Your task to perform on an android device: Add asus rog to the cart on walmart.com Image 0: 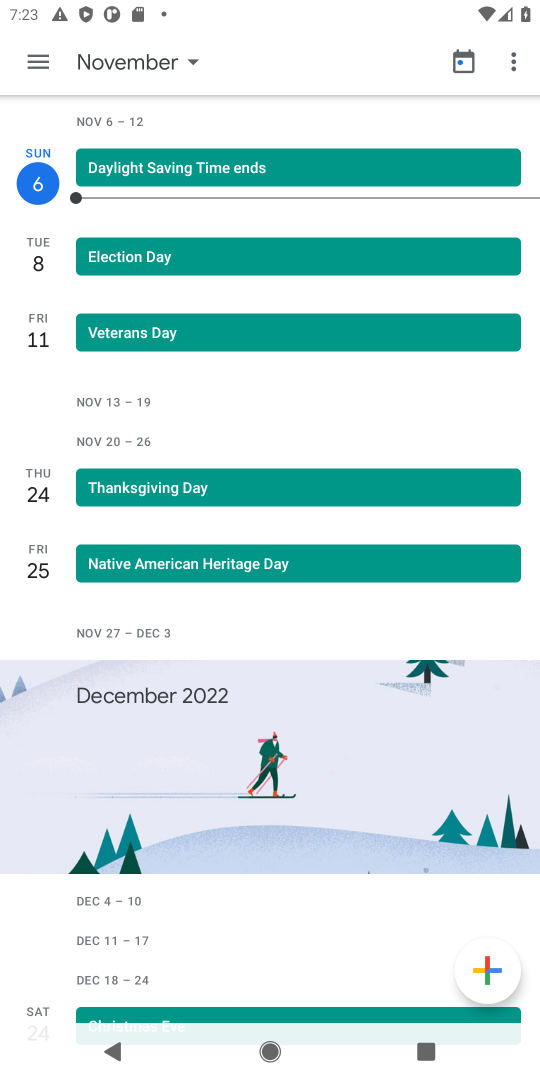
Step 0: press home button
Your task to perform on an android device: Add asus rog to the cart on walmart.com Image 1: 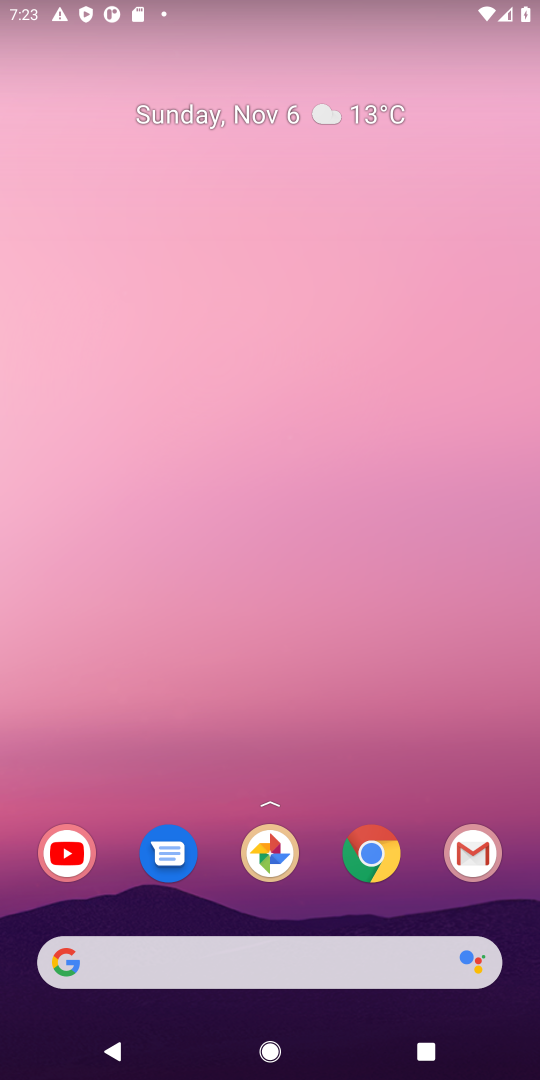
Step 1: click (363, 851)
Your task to perform on an android device: Add asus rog to the cart on walmart.com Image 2: 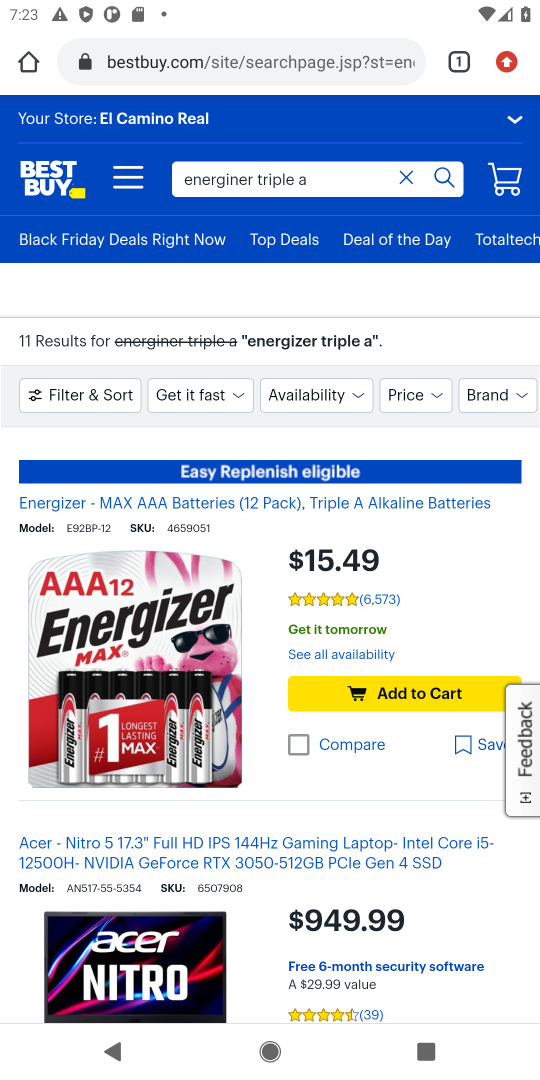
Step 2: click (299, 40)
Your task to perform on an android device: Add asus rog to the cart on walmart.com Image 3: 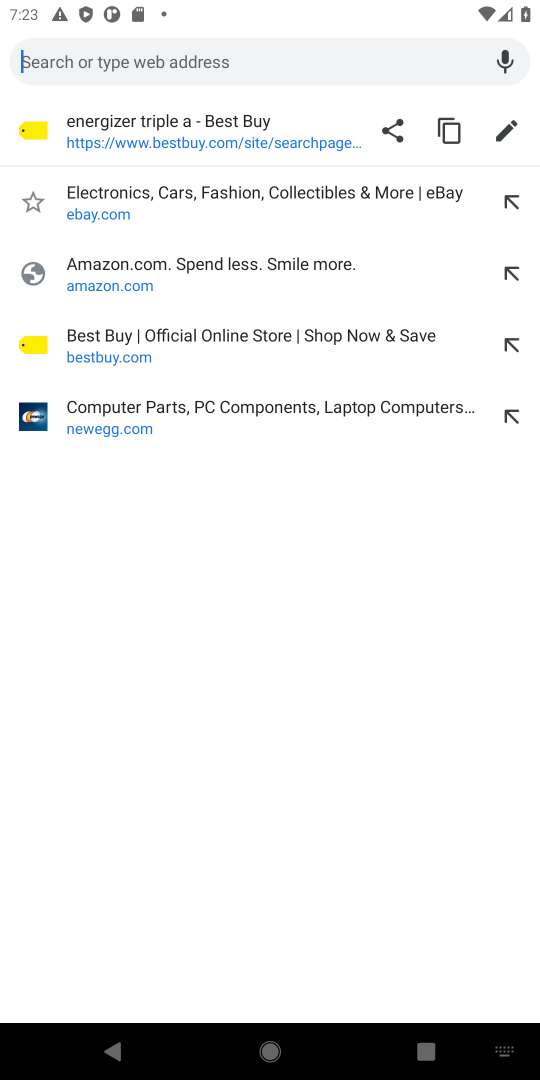
Step 3: type "walmart.com"
Your task to perform on an android device: Add asus rog to the cart on walmart.com Image 4: 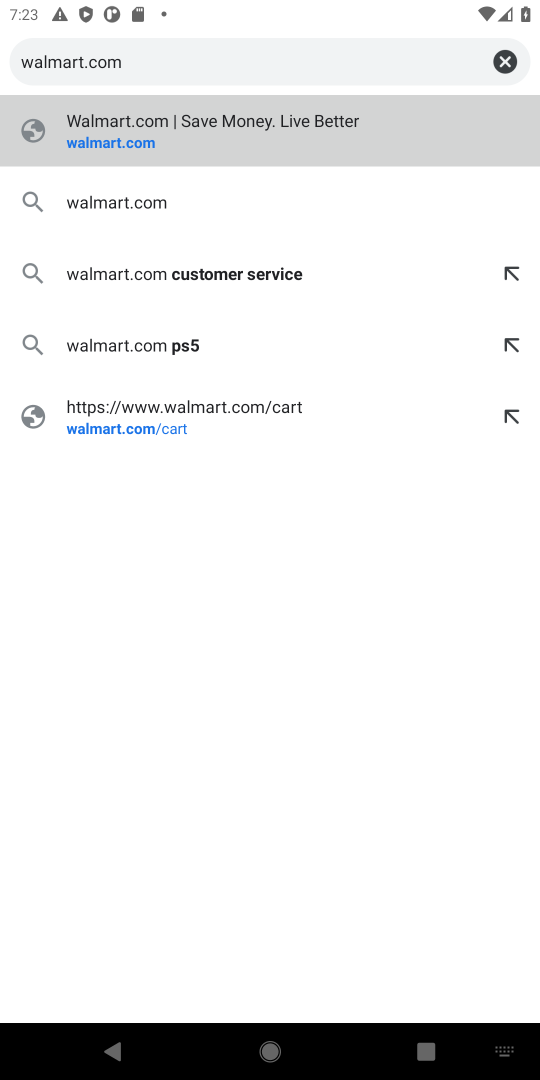
Step 4: click (70, 125)
Your task to perform on an android device: Add asus rog to the cart on walmart.com Image 5: 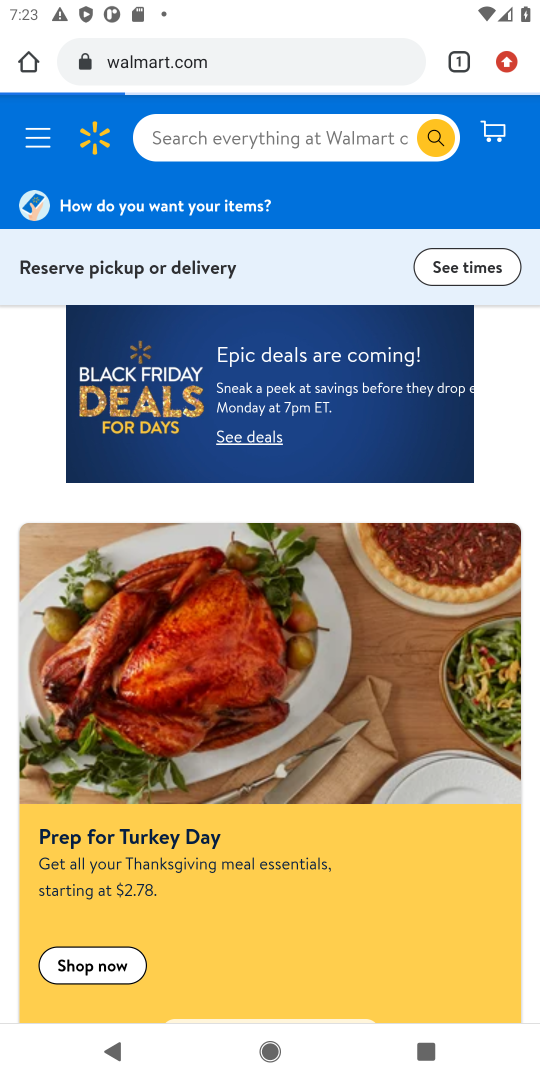
Step 5: click (262, 131)
Your task to perform on an android device: Add asus rog to the cart on walmart.com Image 6: 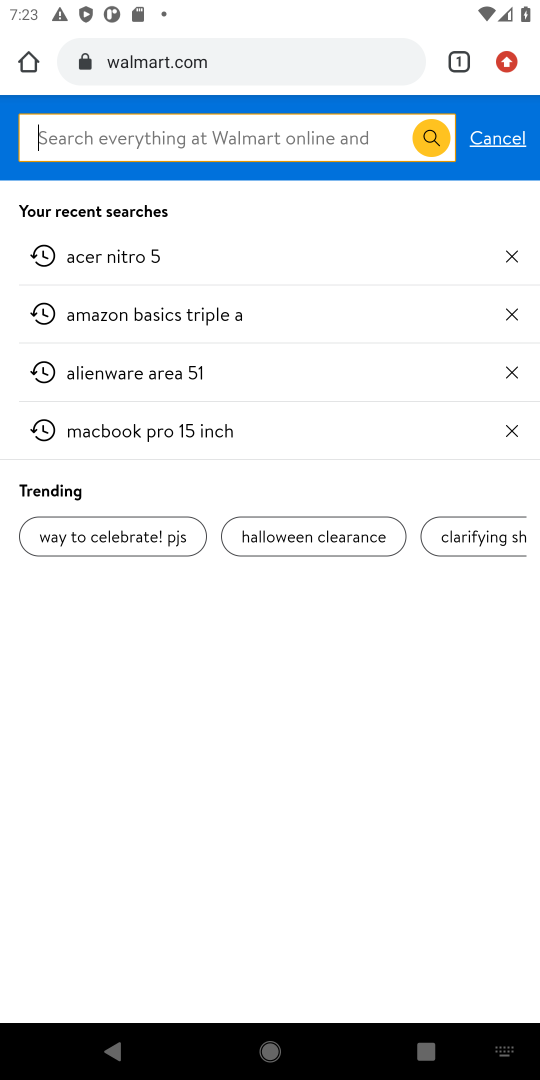
Step 6: type "asus rog"
Your task to perform on an android device: Add asus rog to the cart on walmart.com Image 7: 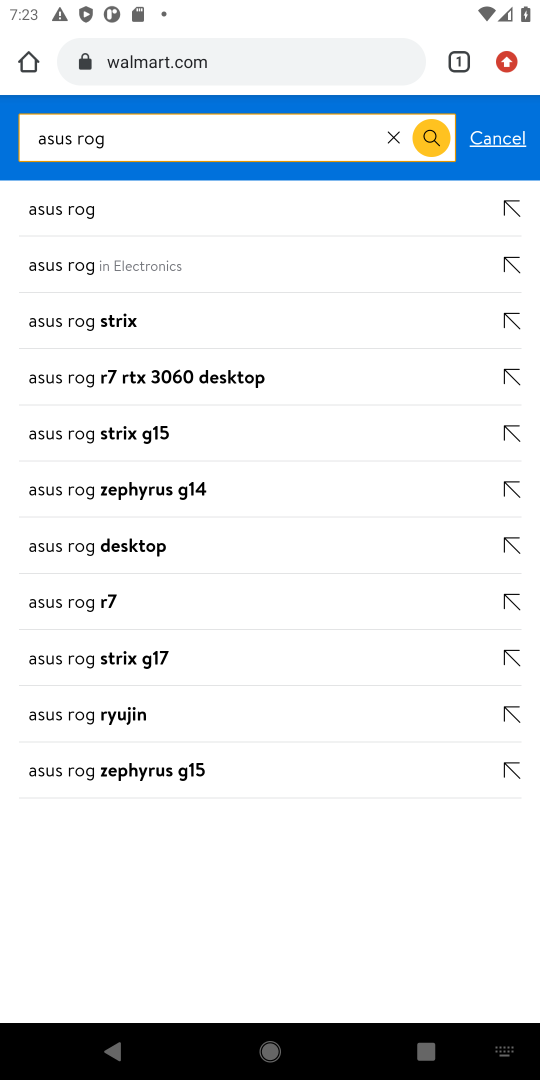
Step 7: click (43, 213)
Your task to perform on an android device: Add asus rog to the cart on walmart.com Image 8: 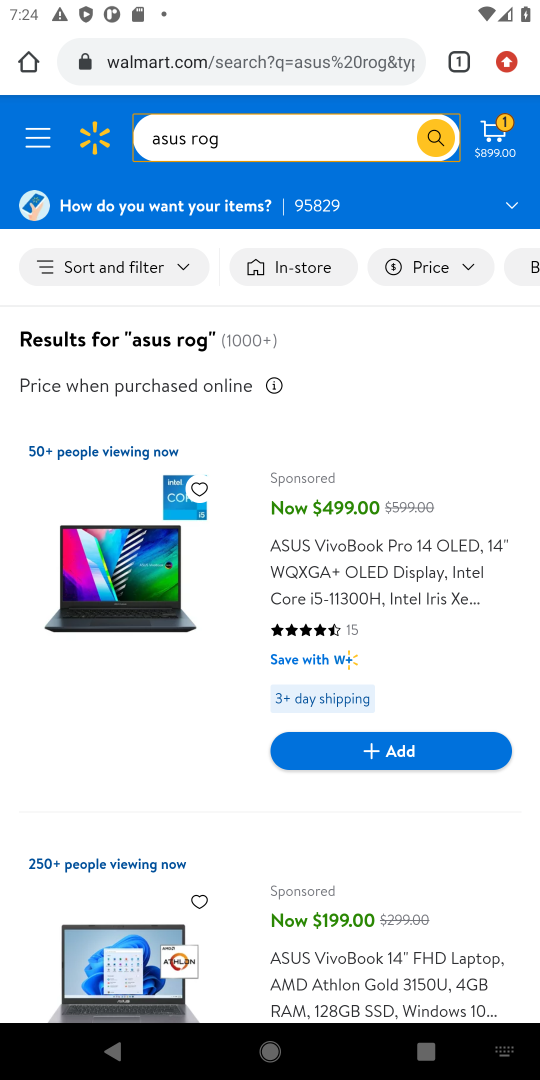
Step 8: drag from (382, 961) to (377, 443)
Your task to perform on an android device: Add asus rog to the cart on walmart.com Image 9: 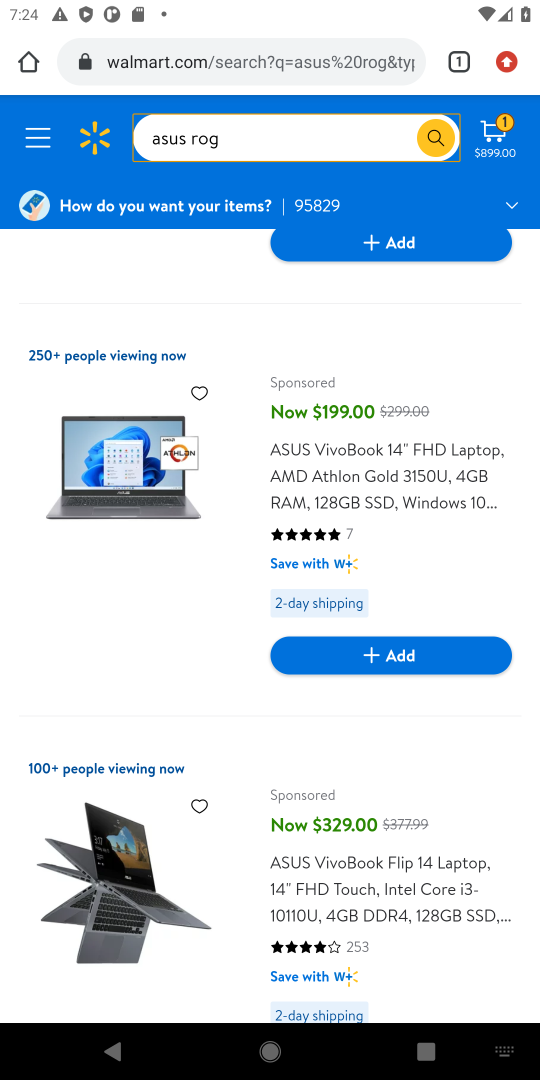
Step 9: drag from (373, 935) to (339, 369)
Your task to perform on an android device: Add asus rog to the cart on walmart.com Image 10: 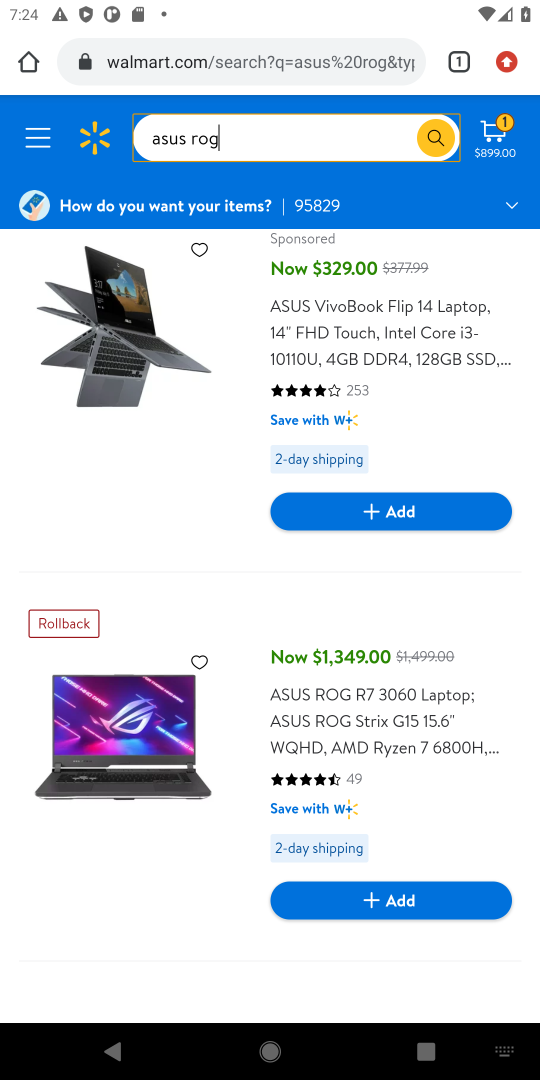
Step 10: click (367, 902)
Your task to perform on an android device: Add asus rog to the cart on walmart.com Image 11: 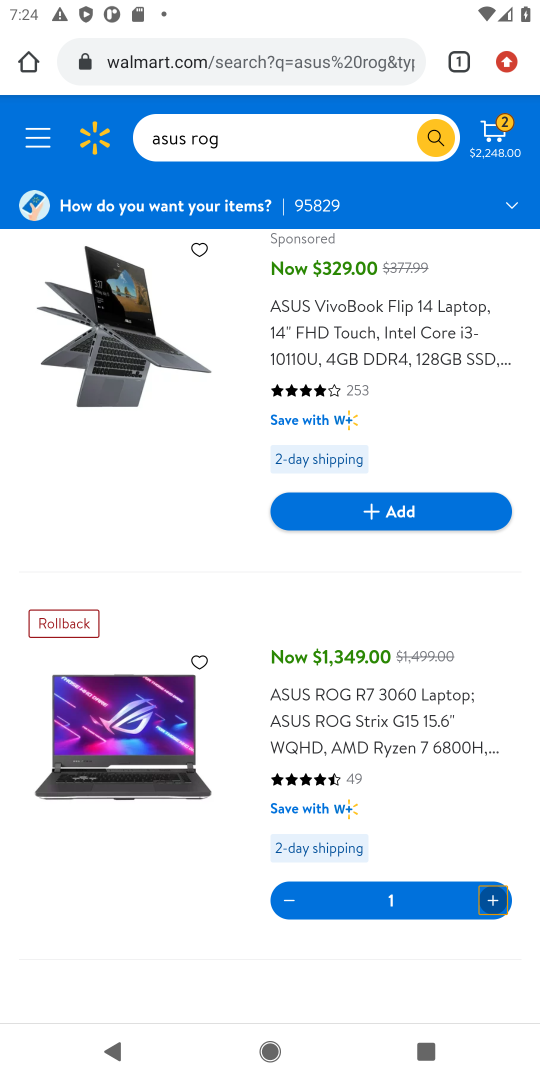
Step 11: task complete